Your task to perform on an android device: turn off data saver in the chrome app Image 0: 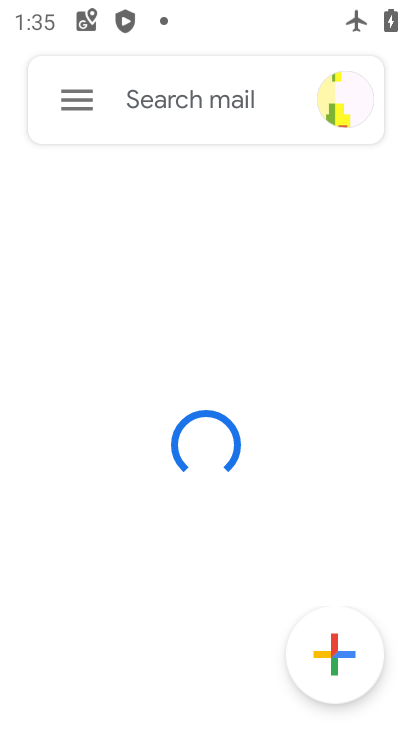
Step 0: press home button
Your task to perform on an android device: turn off data saver in the chrome app Image 1: 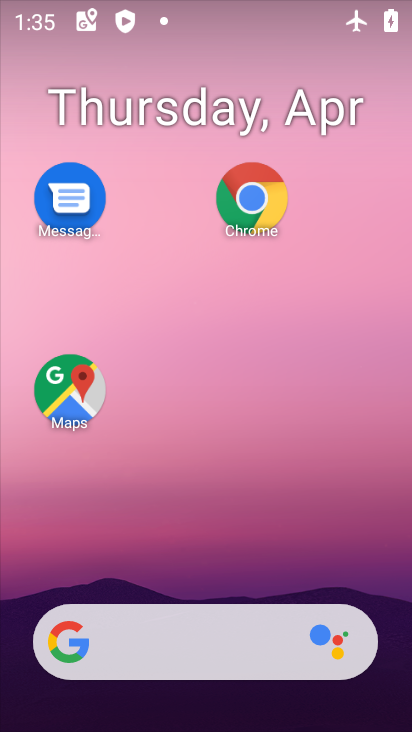
Step 1: drag from (196, 584) to (209, 26)
Your task to perform on an android device: turn off data saver in the chrome app Image 2: 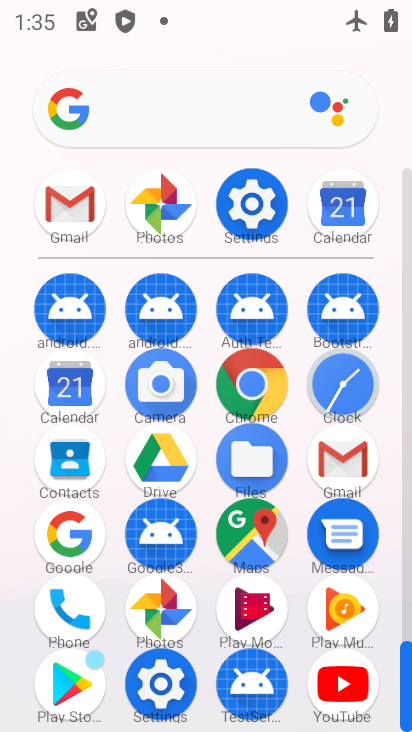
Step 2: click (253, 392)
Your task to perform on an android device: turn off data saver in the chrome app Image 3: 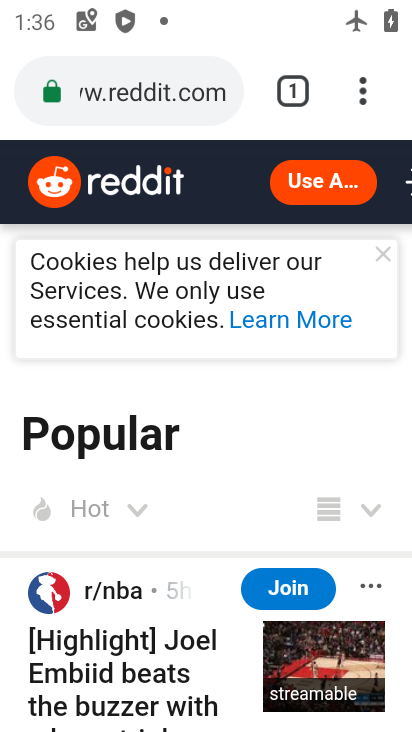
Step 3: drag from (355, 91) to (119, 563)
Your task to perform on an android device: turn off data saver in the chrome app Image 4: 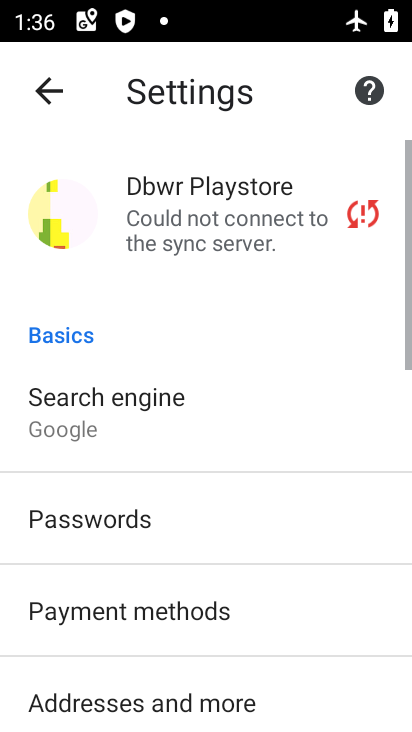
Step 4: drag from (145, 569) to (69, 69)
Your task to perform on an android device: turn off data saver in the chrome app Image 5: 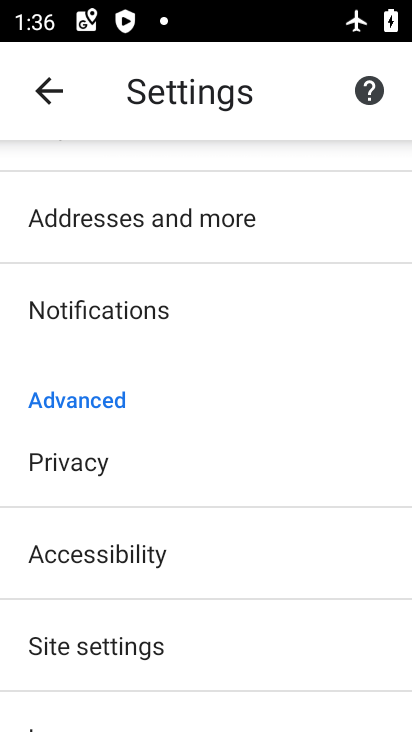
Step 5: drag from (104, 627) to (45, 193)
Your task to perform on an android device: turn off data saver in the chrome app Image 6: 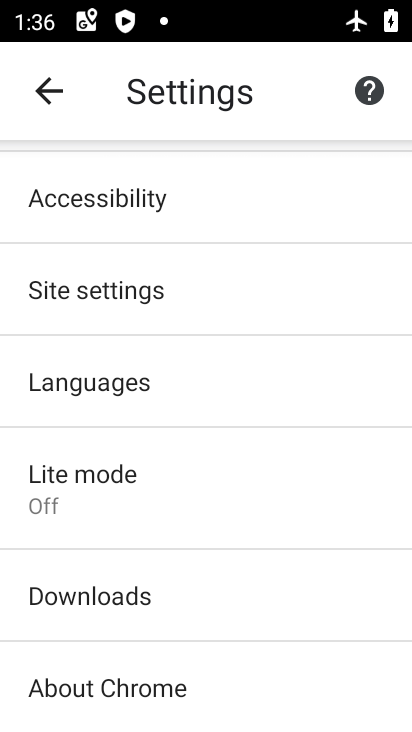
Step 6: click (80, 511)
Your task to perform on an android device: turn off data saver in the chrome app Image 7: 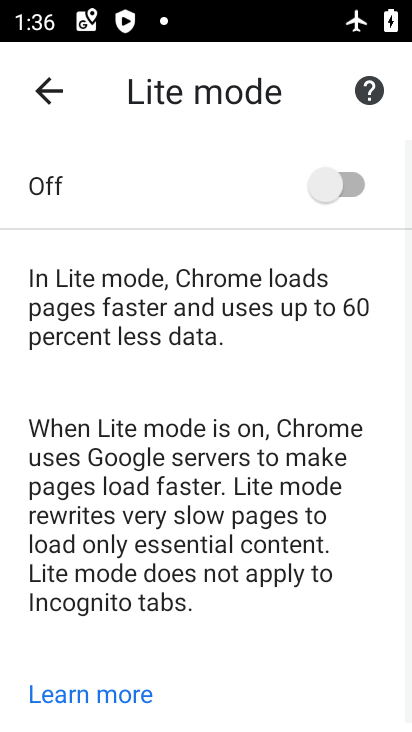
Step 7: task complete